Your task to perform on an android device: clear all cookies in the chrome app Image 0: 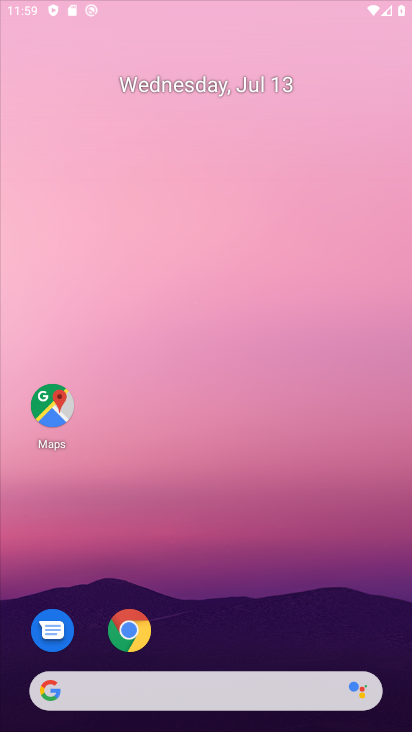
Step 0: press home button
Your task to perform on an android device: clear all cookies in the chrome app Image 1: 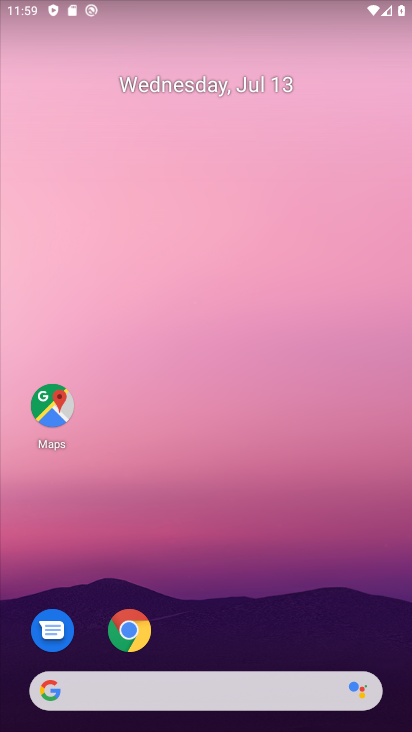
Step 1: click (139, 630)
Your task to perform on an android device: clear all cookies in the chrome app Image 2: 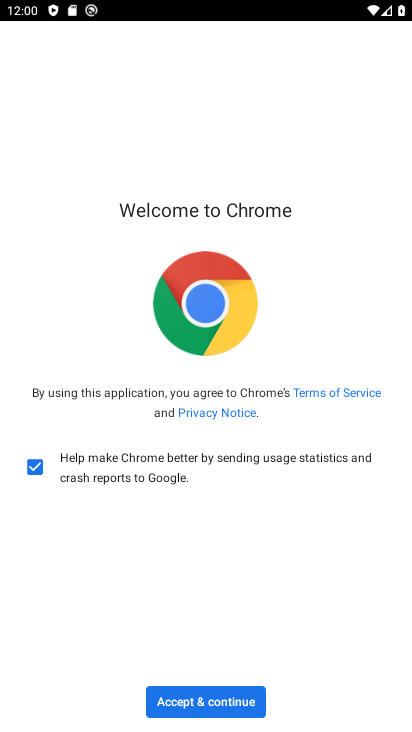
Step 2: click (205, 704)
Your task to perform on an android device: clear all cookies in the chrome app Image 3: 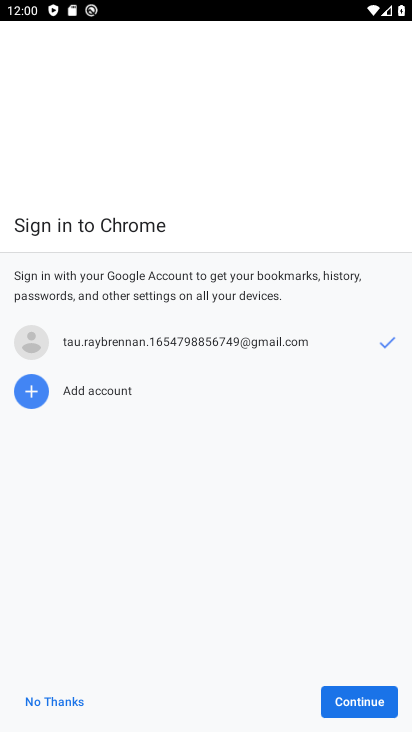
Step 3: click (388, 702)
Your task to perform on an android device: clear all cookies in the chrome app Image 4: 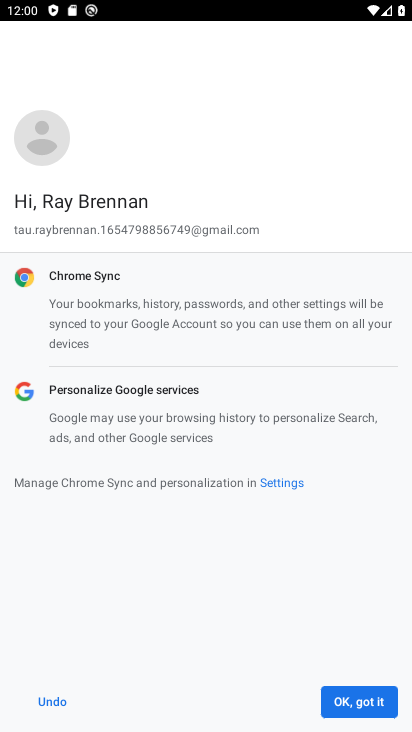
Step 4: click (388, 702)
Your task to perform on an android device: clear all cookies in the chrome app Image 5: 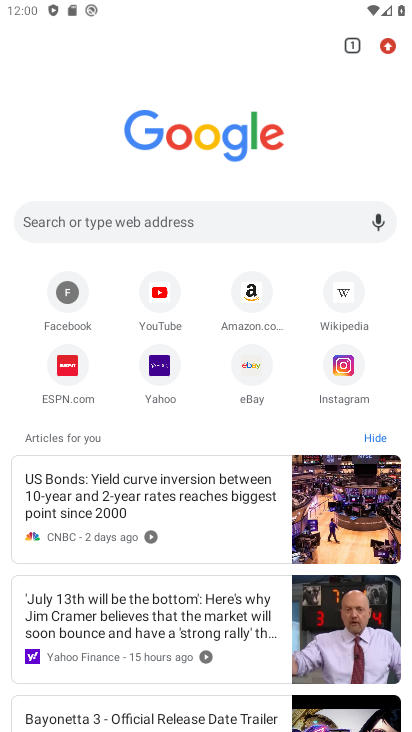
Step 5: click (383, 42)
Your task to perform on an android device: clear all cookies in the chrome app Image 6: 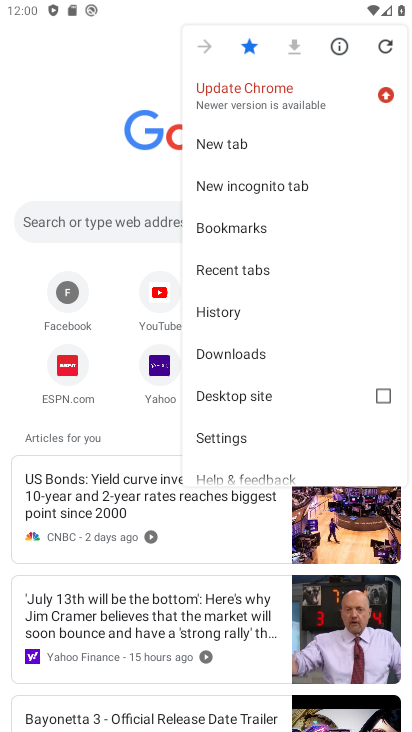
Step 6: click (226, 315)
Your task to perform on an android device: clear all cookies in the chrome app Image 7: 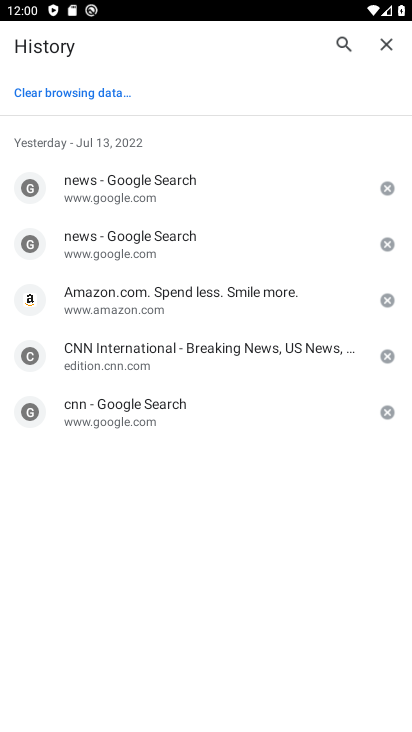
Step 7: click (58, 93)
Your task to perform on an android device: clear all cookies in the chrome app Image 8: 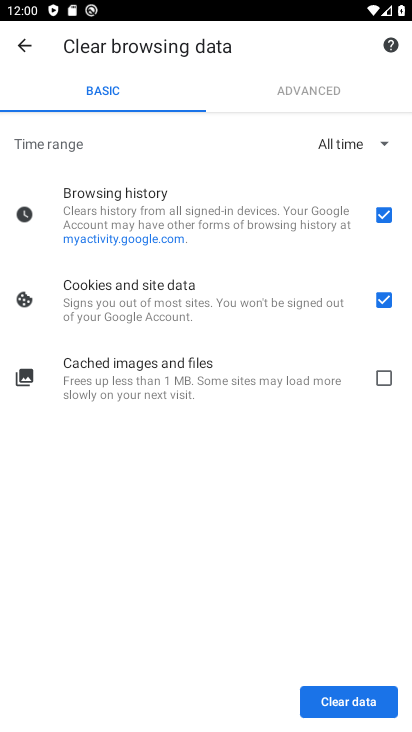
Step 8: click (366, 228)
Your task to perform on an android device: clear all cookies in the chrome app Image 9: 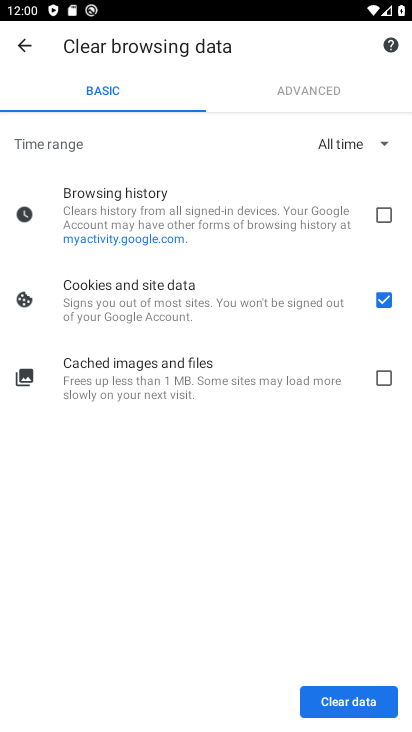
Step 9: click (353, 695)
Your task to perform on an android device: clear all cookies in the chrome app Image 10: 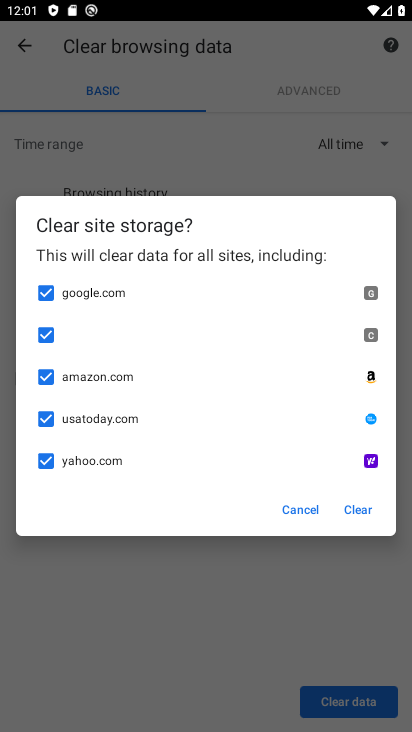
Step 10: click (345, 516)
Your task to perform on an android device: clear all cookies in the chrome app Image 11: 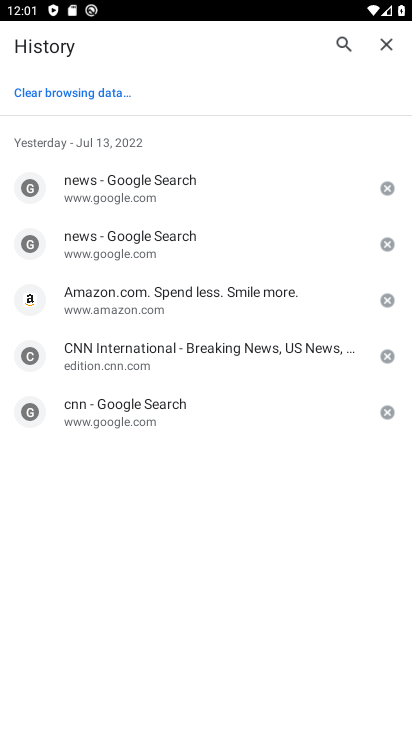
Step 11: task complete